Your task to perform on an android device: Go to privacy settings Image 0: 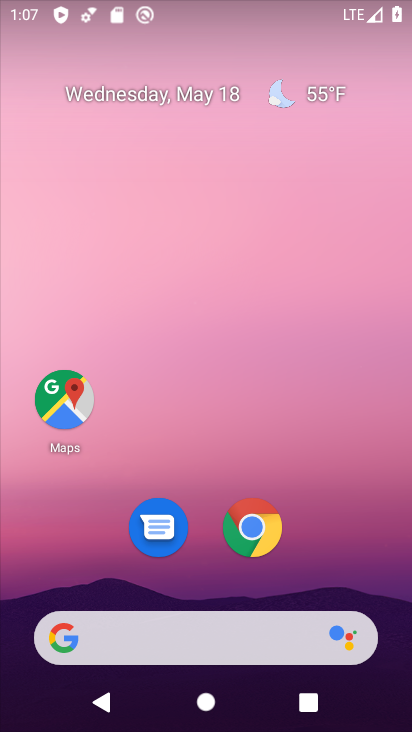
Step 0: drag from (340, 493) to (215, 62)
Your task to perform on an android device: Go to privacy settings Image 1: 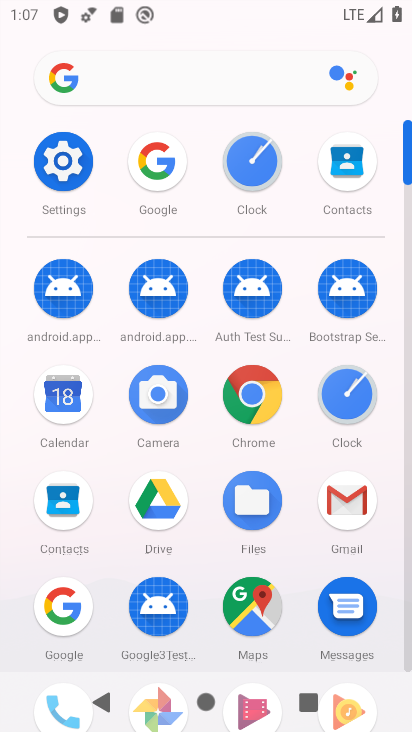
Step 1: click (71, 170)
Your task to perform on an android device: Go to privacy settings Image 2: 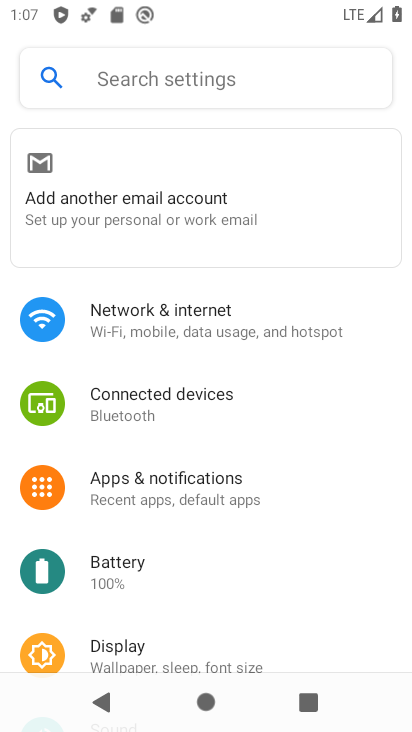
Step 2: drag from (237, 578) to (247, 201)
Your task to perform on an android device: Go to privacy settings Image 3: 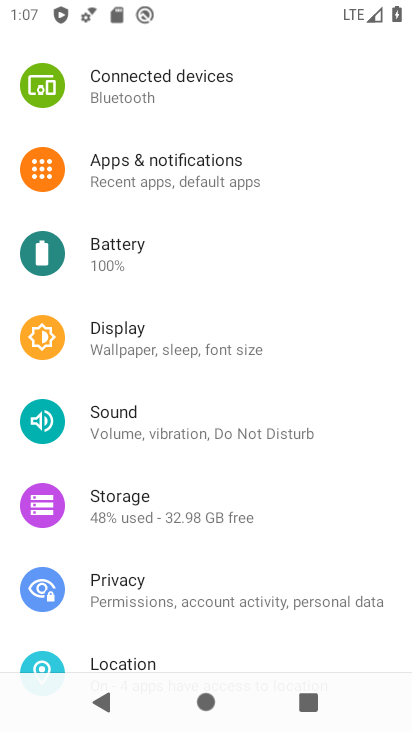
Step 3: click (178, 592)
Your task to perform on an android device: Go to privacy settings Image 4: 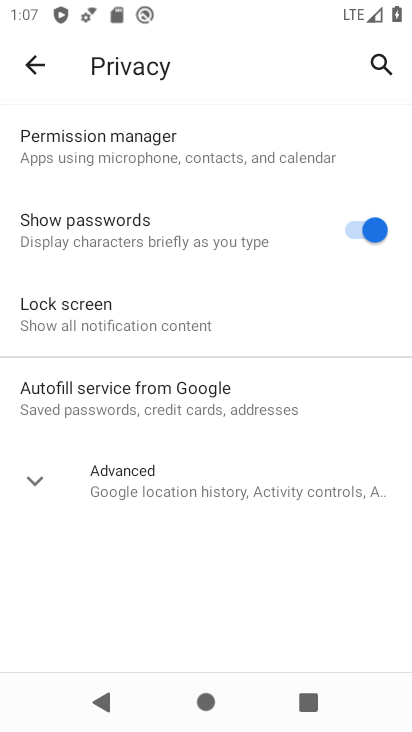
Step 4: task complete